Your task to perform on an android device: Show the shopping cart on amazon. Search for asus zenbook on amazon, select the first entry, and add it to the cart. Image 0: 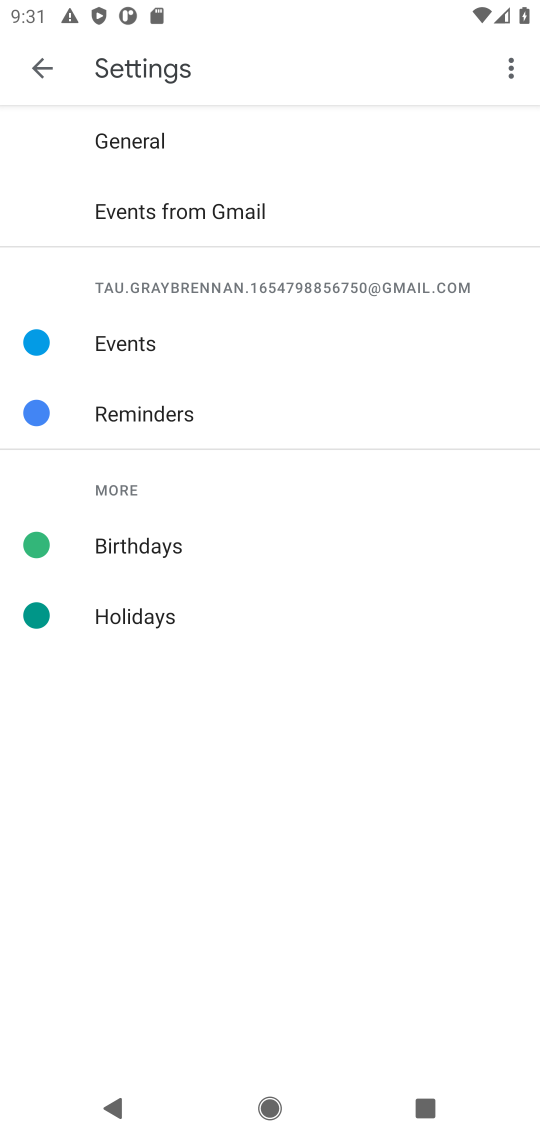
Step 0: press home button
Your task to perform on an android device: Show the shopping cart on amazon. Search for asus zenbook on amazon, select the first entry, and add it to the cart. Image 1: 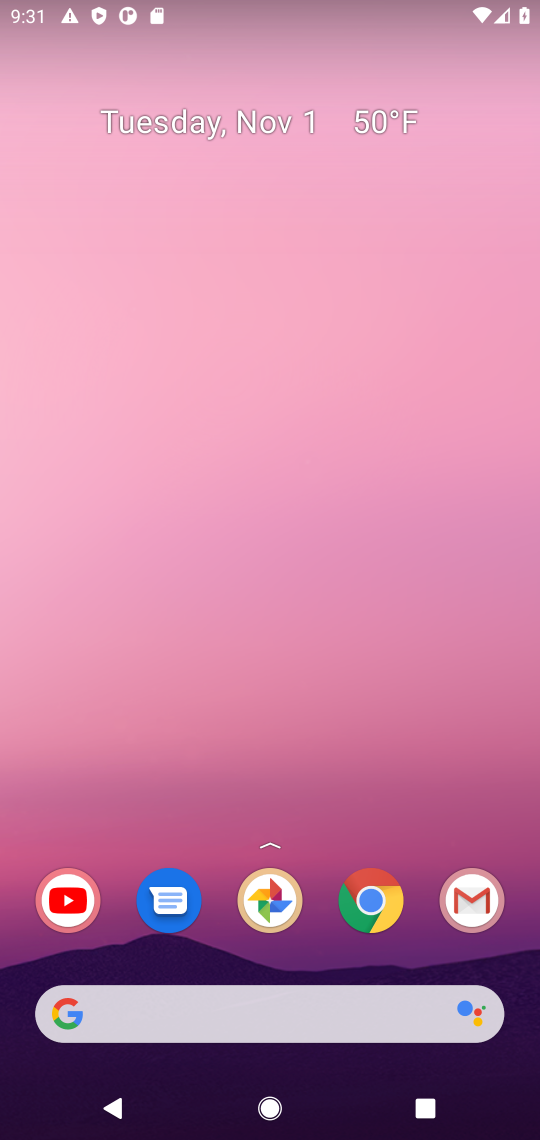
Step 1: click (374, 918)
Your task to perform on an android device: Show the shopping cart on amazon. Search for asus zenbook on amazon, select the first entry, and add it to the cart. Image 2: 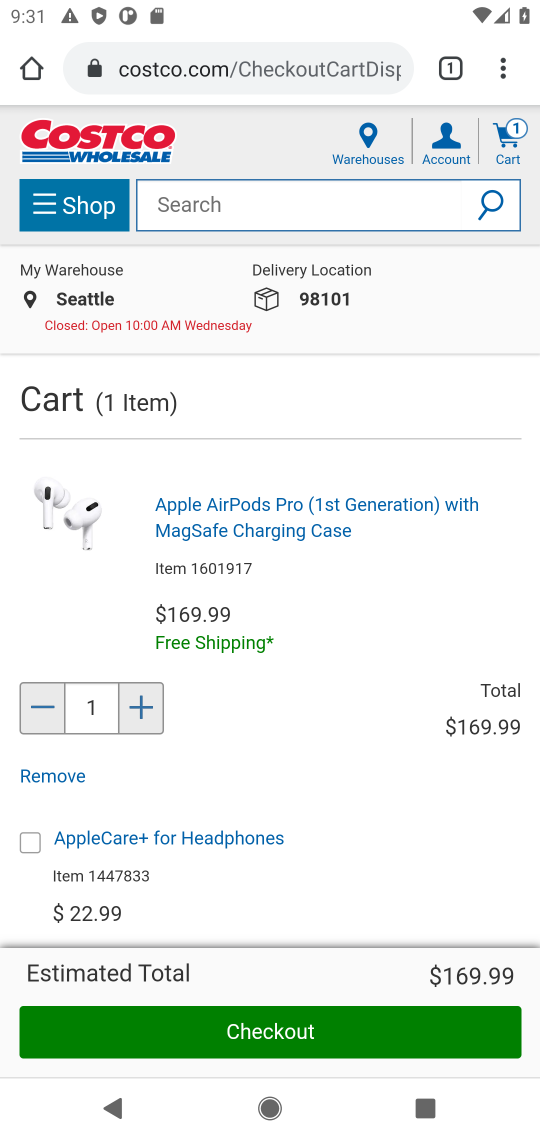
Step 2: click (225, 67)
Your task to perform on an android device: Show the shopping cart on amazon. Search for asus zenbook on amazon, select the first entry, and add it to the cart. Image 3: 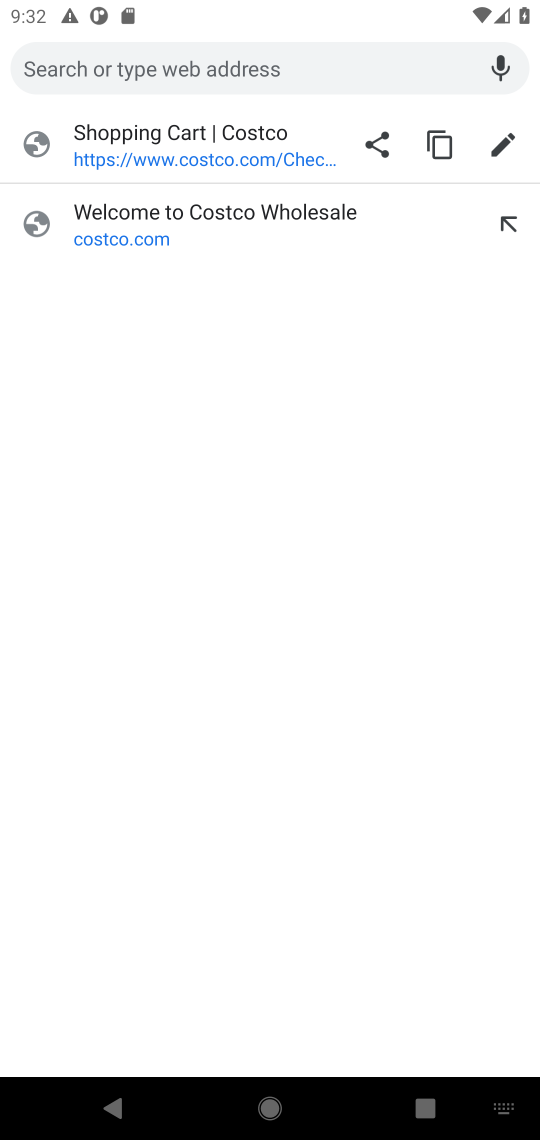
Step 3: type "amazon"
Your task to perform on an android device: Show the shopping cart on amazon. Search for asus zenbook on amazon, select the first entry, and add it to the cart. Image 4: 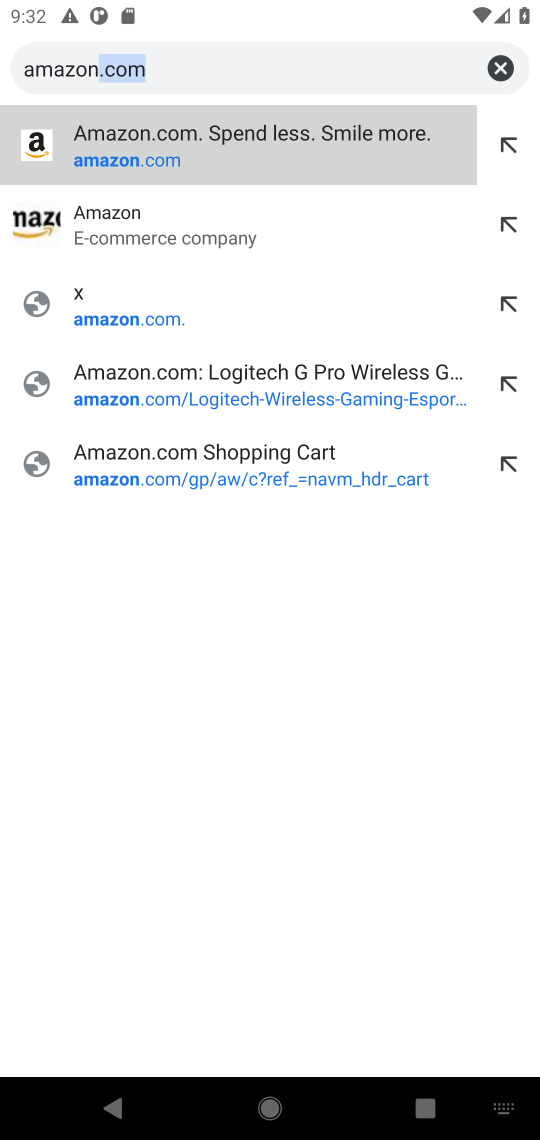
Step 4: click (259, 224)
Your task to perform on an android device: Show the shopping cart on amazon. Search for asus zenbook on amazon, select the first entry, and add it to the cart. Image 5: 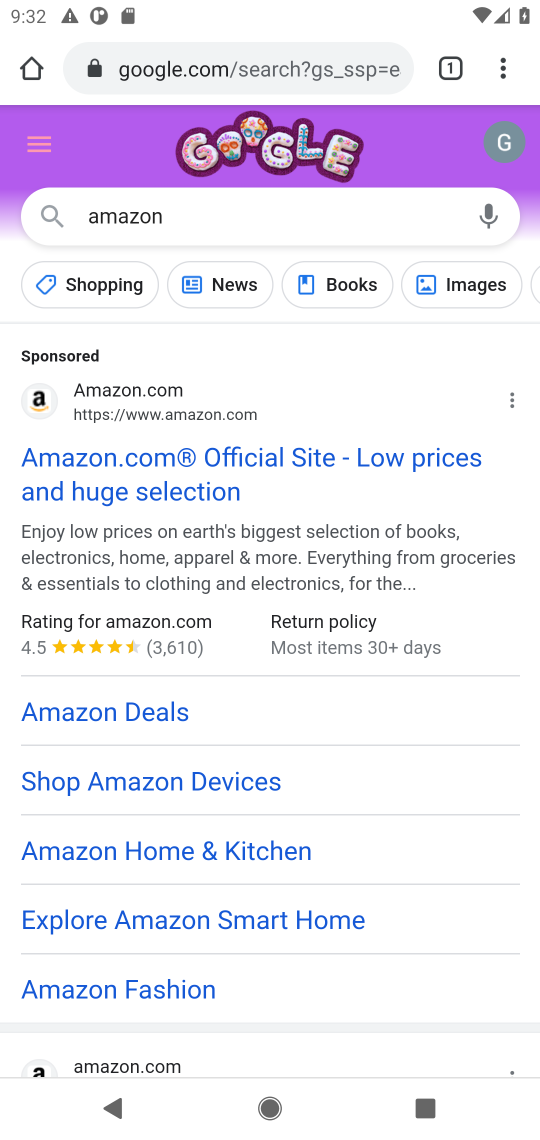
Step 5: click (58, 506)
Your task to perform on an android device: Show the shopping cart on amazon. Search for asus zenbook on amazon, select the first entry, and add it to the cart. Image 6: 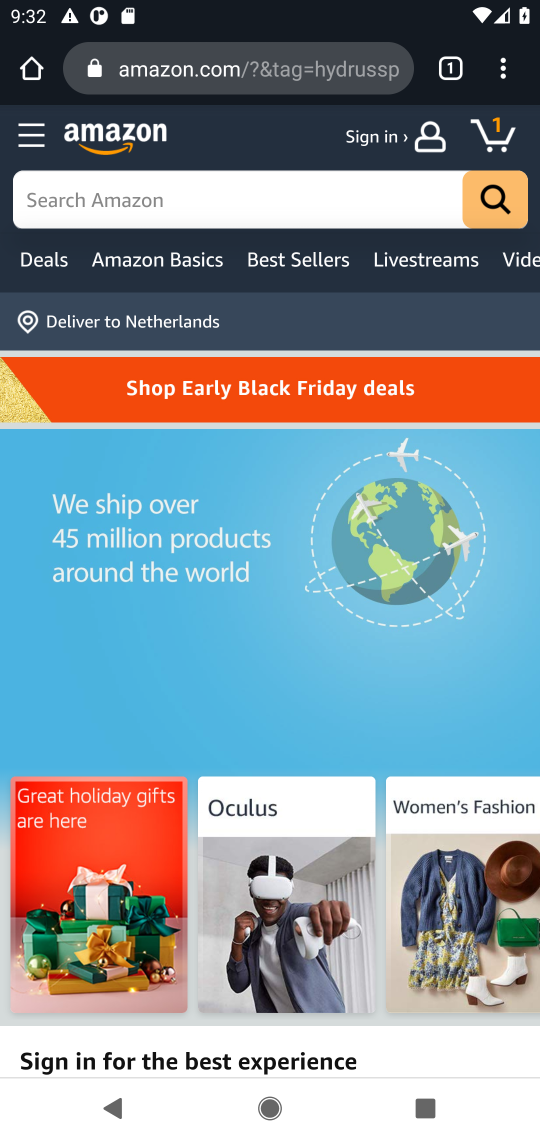
Step 6: click (508, 127)
Your task to perform on an android device: Show the shopping cart on amazon. Search for asus zenbook on amazon, select the first entry, and add it to the cart. Image 7: 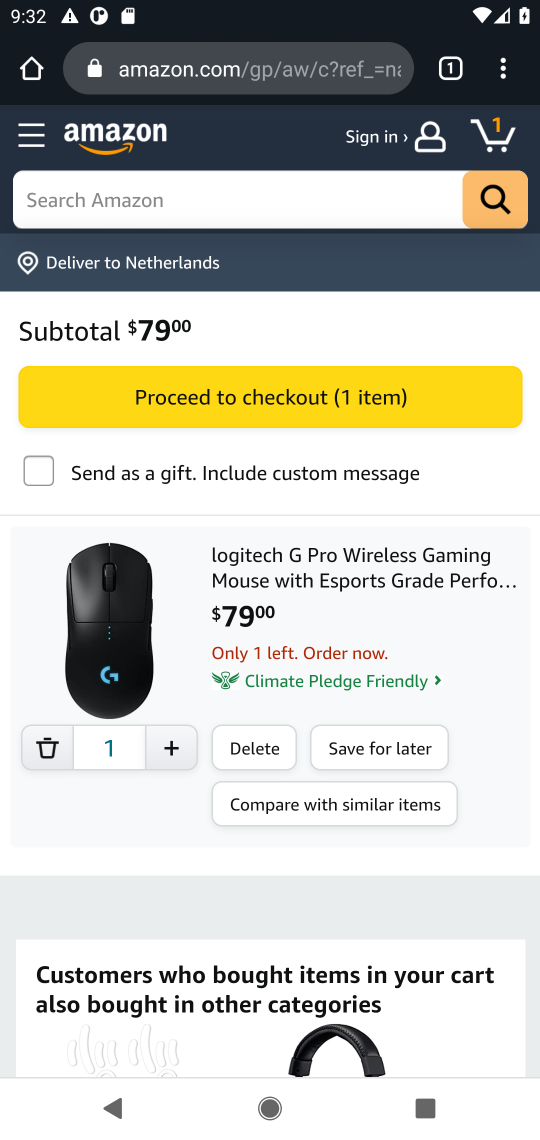
Step 7: click (170, 188)
Your task to perform on an android device: Show the shopping cart on amazon. Search for asus zenbook on amazon, select the first entry, and add it to the cart. Image 8: 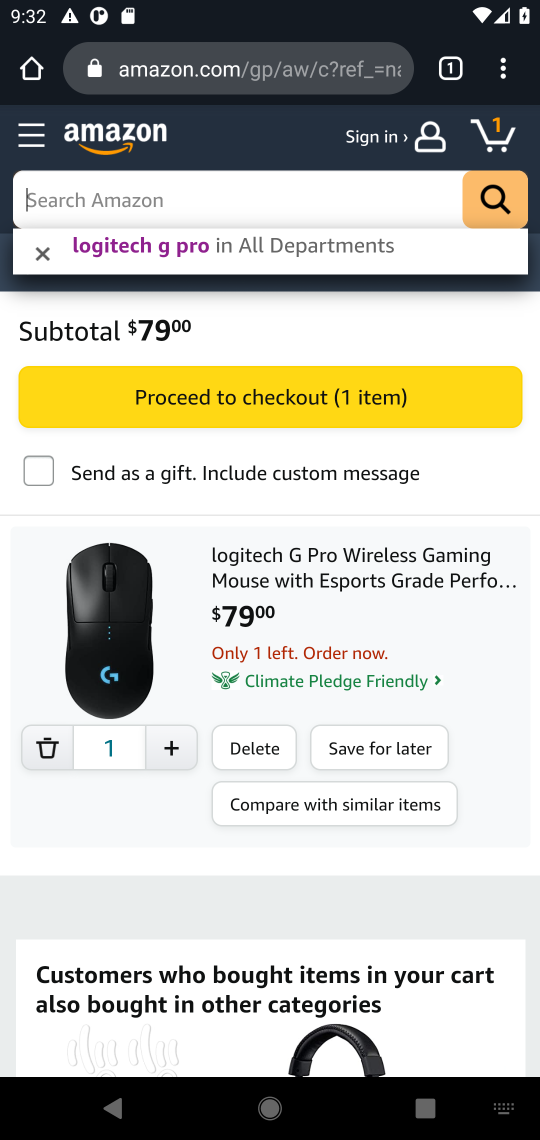
Step 8: type "asus zenbook"
Your task to perform on an android device: Show the shopping cart on amazon. Search for asus zenbook on amazon, select the first entry, and add it to the cart. Image 9: 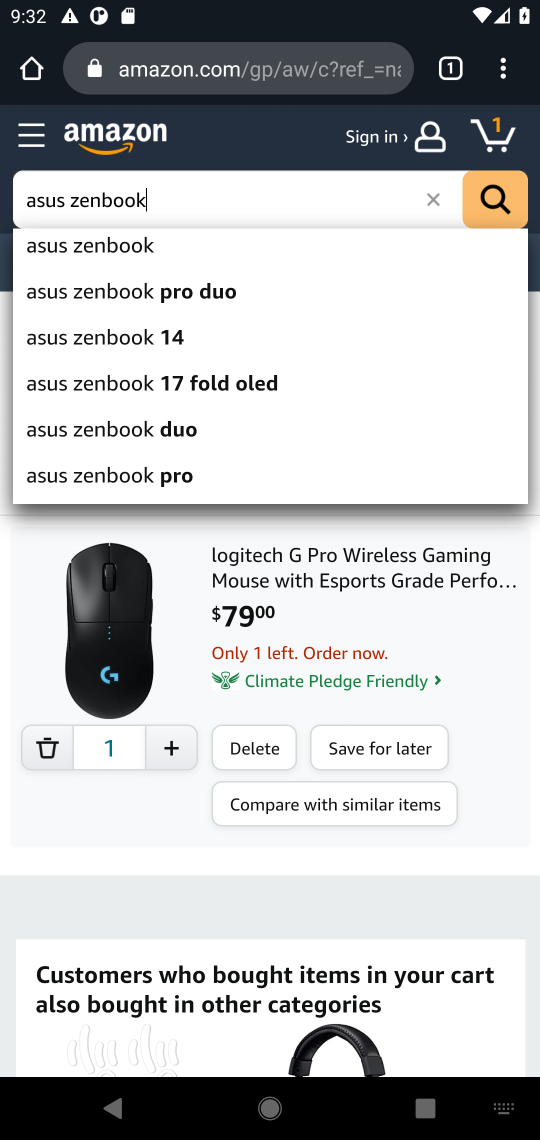
Step 9: click (481, 209)
Your task to perform on an android device: Show the shopping cart on amazon. Search for asus zenbook on amazon, select the first entry, and add it to the cart. Image 10: 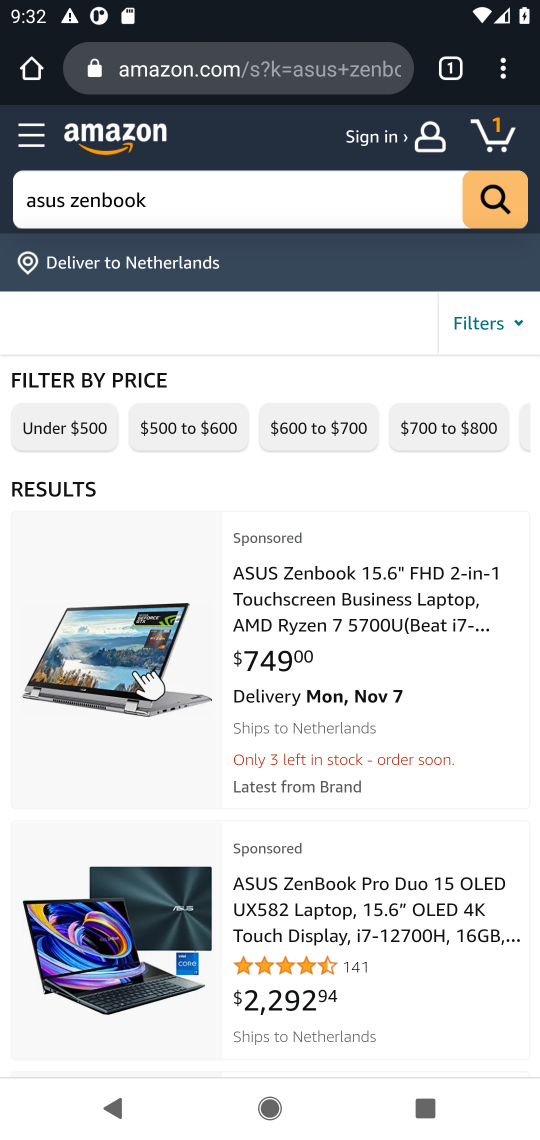
Step 10: click (330, 647)
Your task to perform on an android device: Show the shopping cart on amazon. Search for asus zenbook on amazon, select the first entry, and add it to the cart. Image 11: 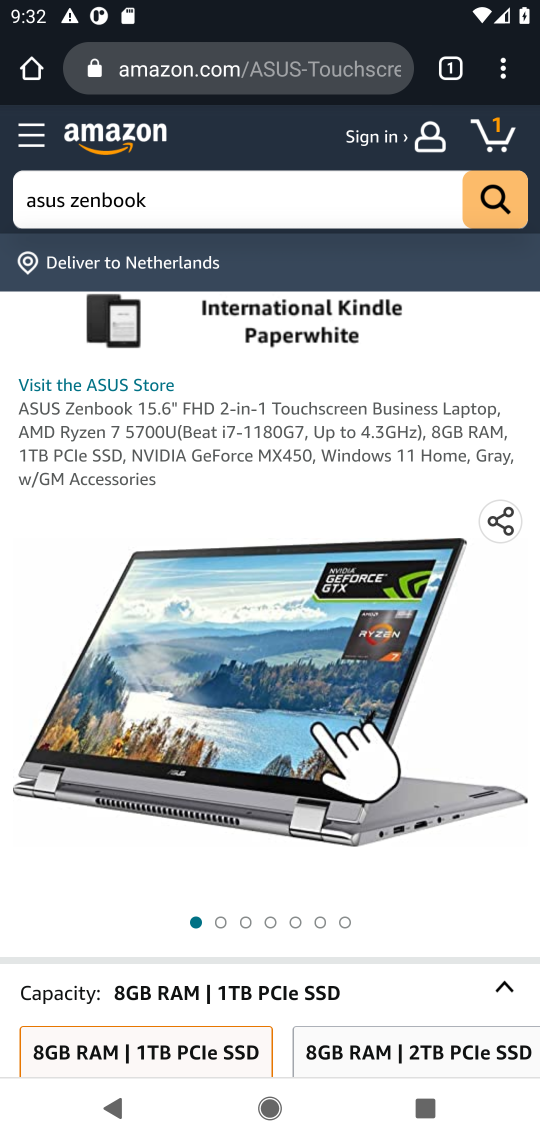
Step 11: drag from (85, 931) to (203, 351)
Your task to perform on an android device: Show the shopping cart on amazon. Search for asus zenbook on amazon, select the first entry, and add it to the cart. Image 12: 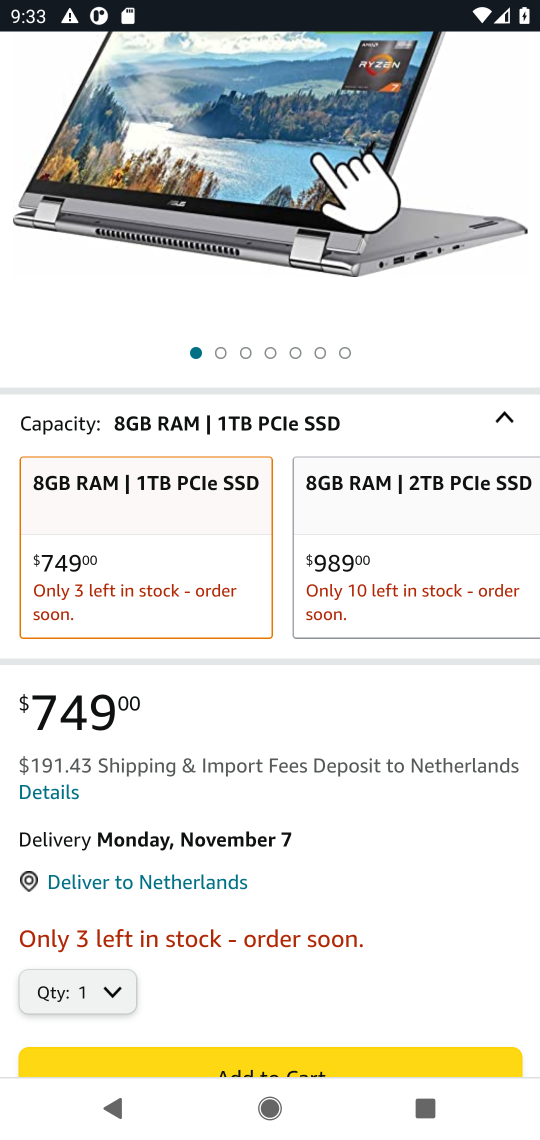
Step 12: drag from (347, 1017) to (338, 697)
Your task to perform on an android device: Show the shopping cart on amazon. Search for asus zenbook on amazon, select the first entry, and add it to the cart. Image 13: 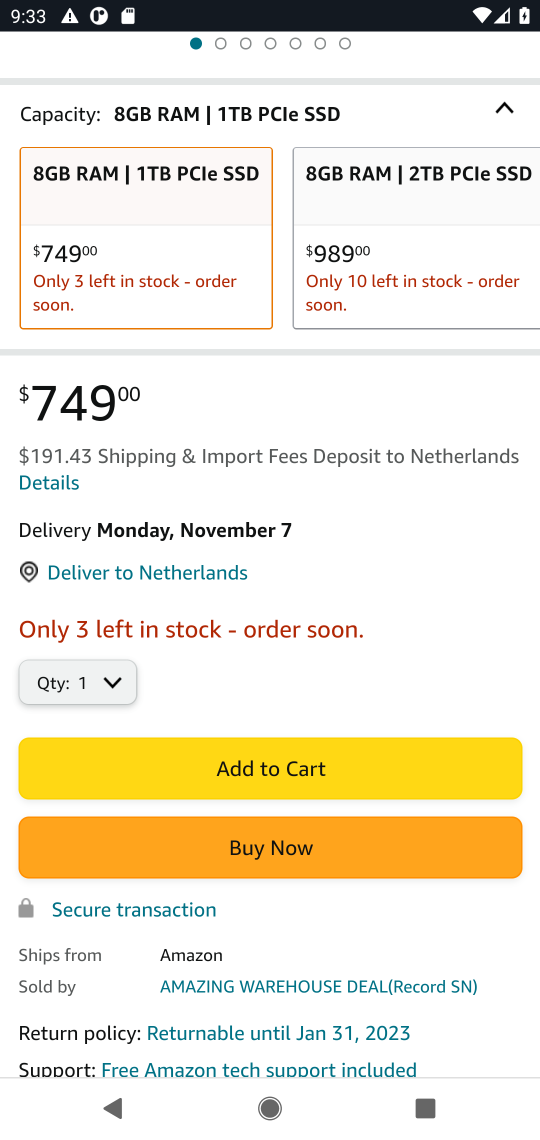
Step 13: click (293, 753)
Your task to perform on an android device: Show the shopping cart on amazon. Search for asus zenbook on amazon, select the first entry, and add it to the cart. Image 14: 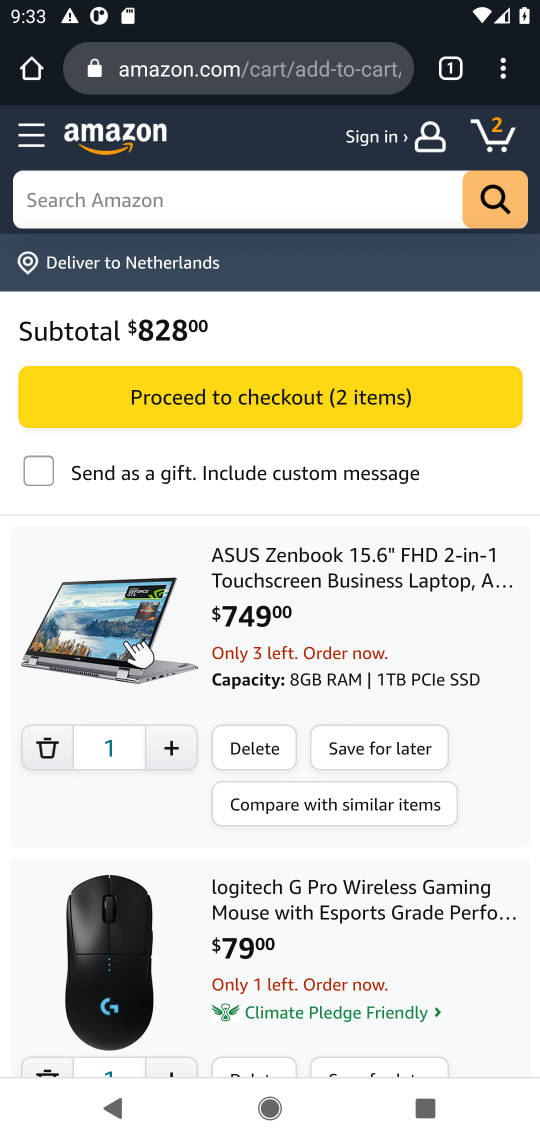
Step 14: task complete